Your task to perform on an android device: open sync settings in chrome Image 0: 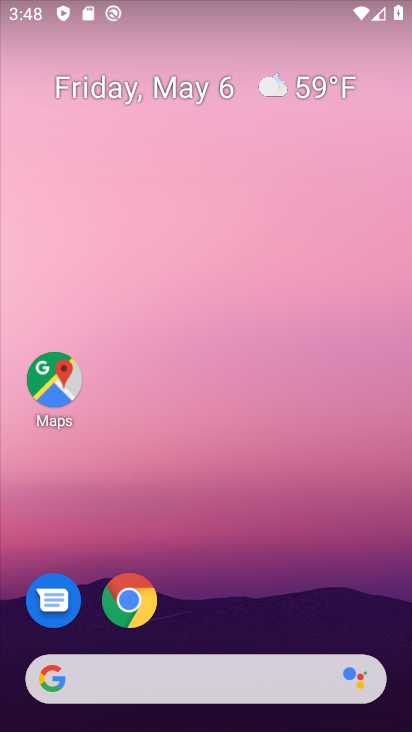
Step 0: click (141, 604)
Your task to perform on an android device: open sync settings in chrome Image 1: 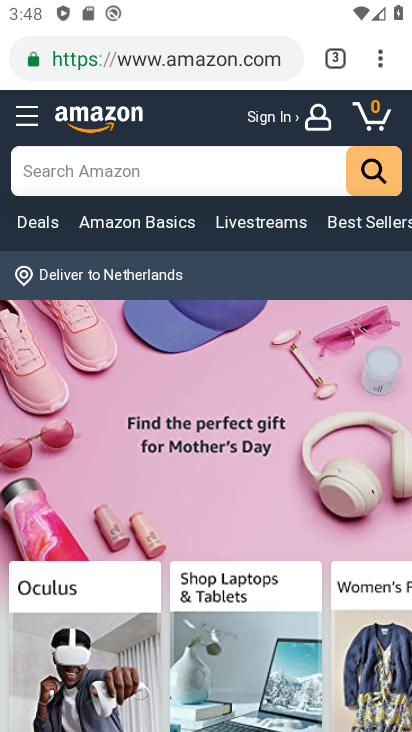
Step 1: click (381, 60)
Your task to perform on an android device: open sync settings in chrome Image 2: 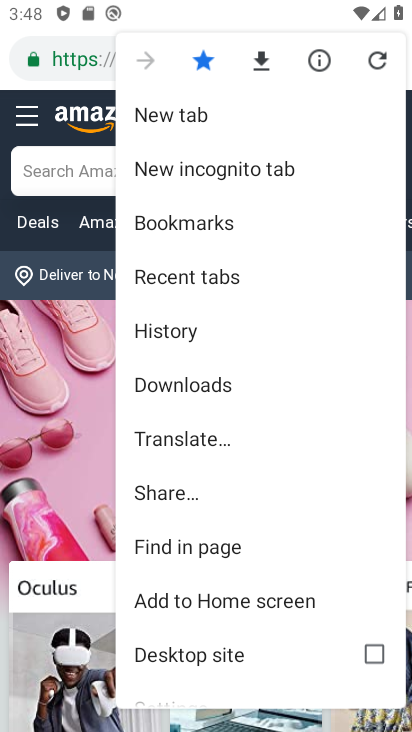
Step 2: drag from (192, 668) to (230, 304)
Your task to perform on an android device: open sync settings in chrome Image 3: 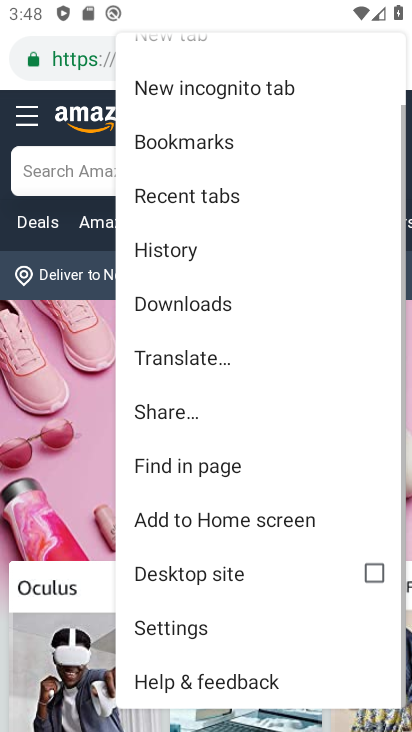
Step 3: click (183, 636)
Your task to perform on an android device: open sync settings in chrome Image 4: 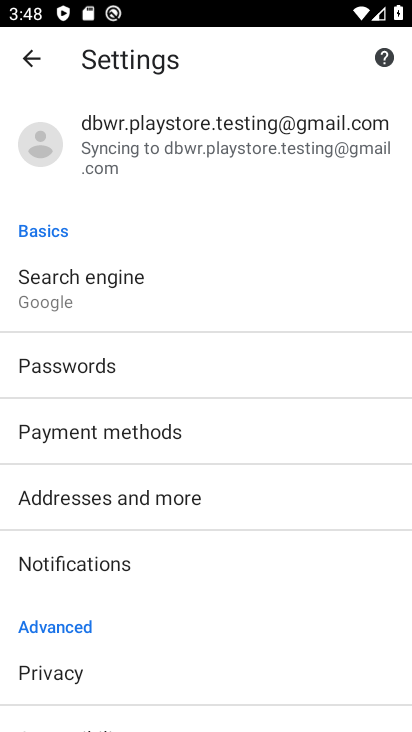
Step 4: click (229, 142)
Your task to perform on an android device: open sync settings in chrome Image 5: 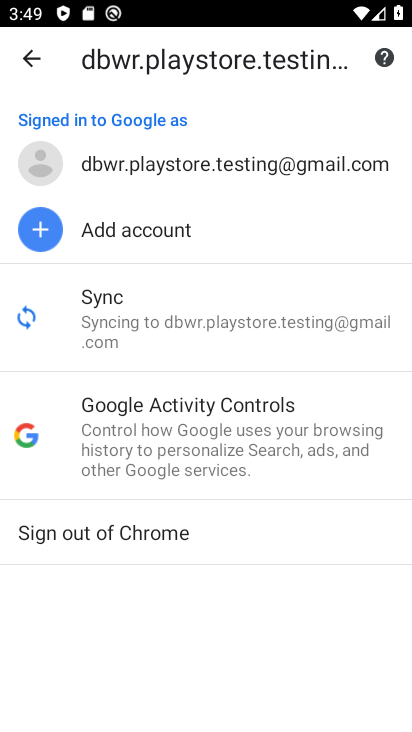
Step 5: click (197, 313)
Your task to perform on an android device: open sync settings in chrome Image 6: 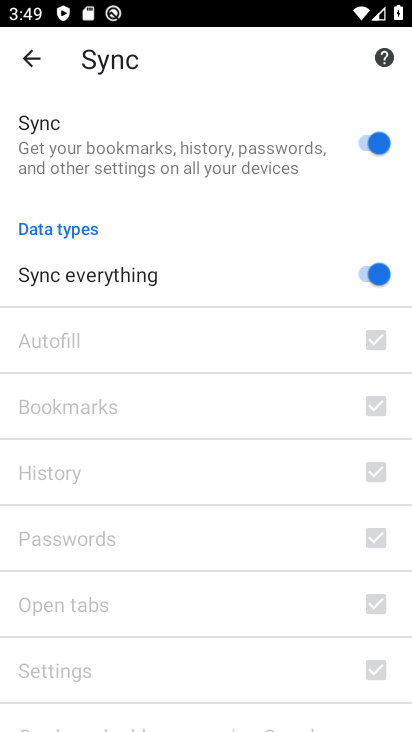
Step 6: task complete